Your task to perform on an android device: snooze an email in the gmail app Image 0: 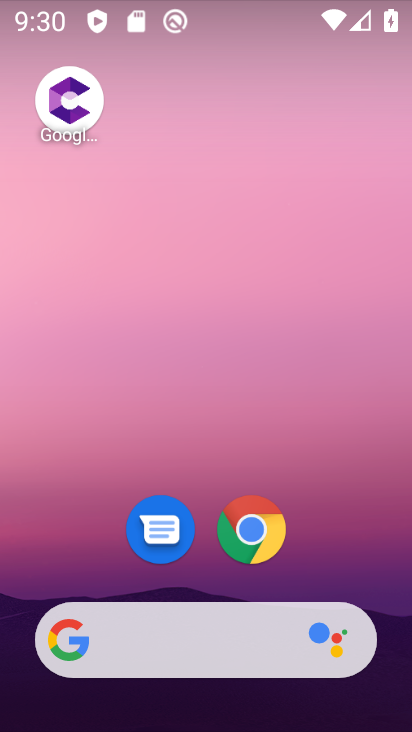
Step 0: drag from (294, 570) to (297, 63)
Your task to perform on an android device: snooze an email in the gmail app Image 1: 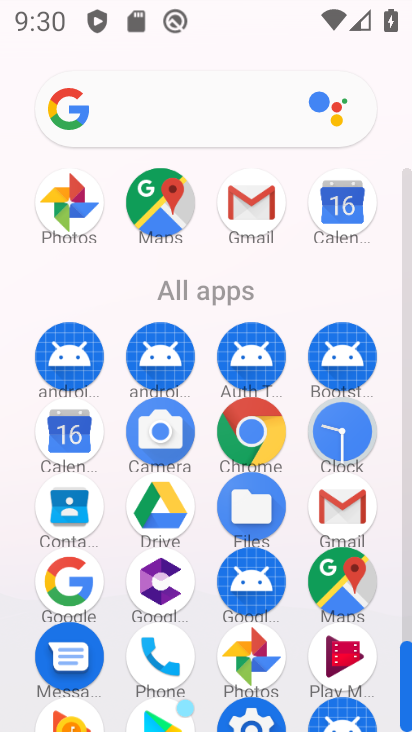
Step 1: click (252, 212)
Your task to perform on an android device: snooze an email in the gmail app Image 2: 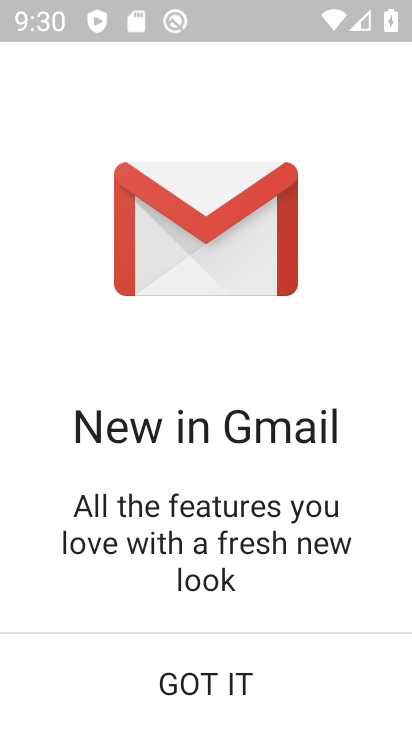
Step 2: click (288, 696)
Your task to perform on an android device: snooze an email in the gmail app Image 3: 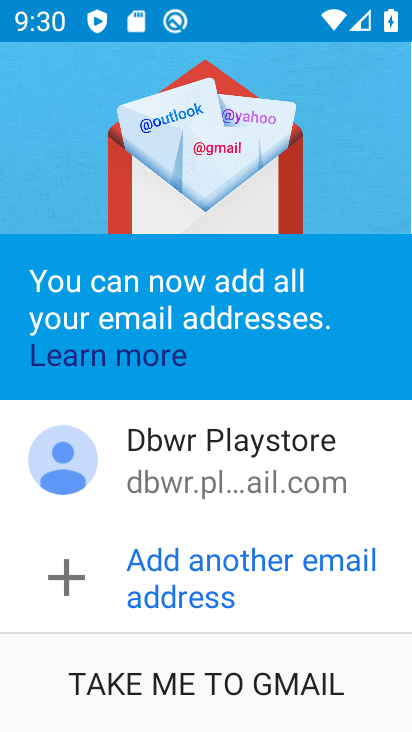
Step 3: click (247, 688)
Your task to perform on an android device: snooze an email in the gmail app Image 4: 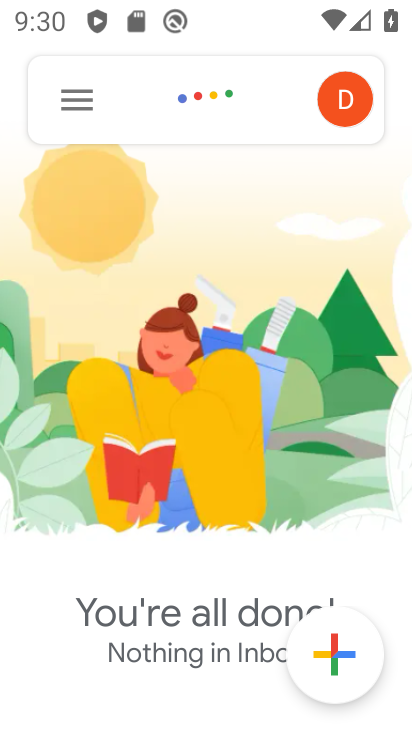
Step 4: click (78, 102)
Your task to perform on an android device: snooze an email in the gmail app Image 5: 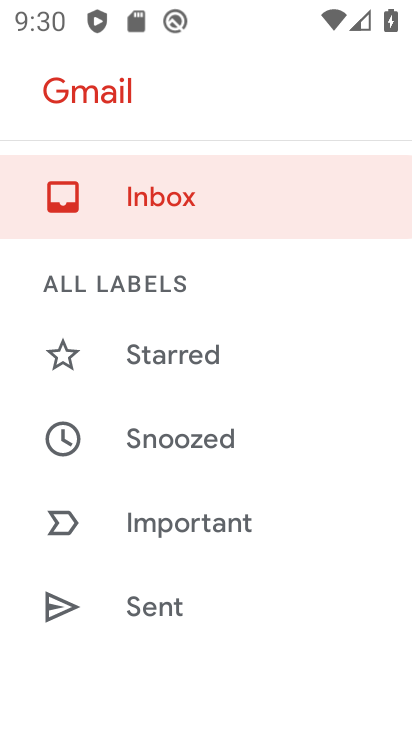
Step 5: drag from (200, 584) to (231, 328)
Your task to perform on an android device: snooze an email in the gmail app Image 6: 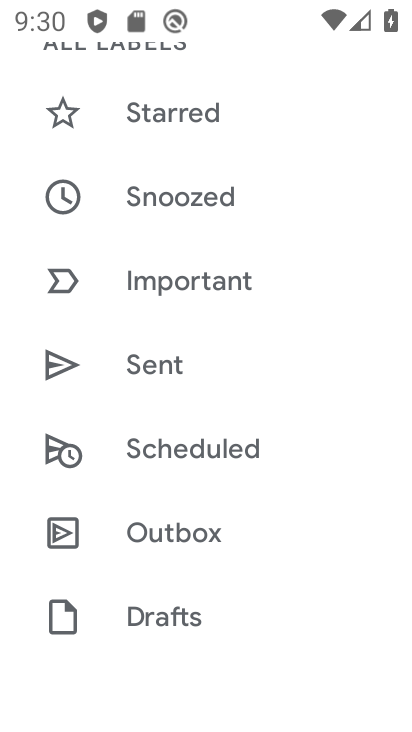
Step 6: drag from (188, 600) to (240, 265)
Your task to perform on an android device: snooze an email in the gmail app Image 7: 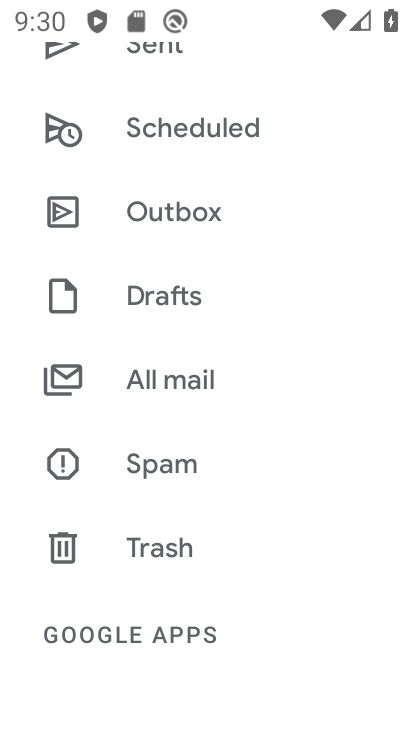
Step 7: click (179, 382)
Your task to perform on an android device: snooze an email in the gmail app Image 8: 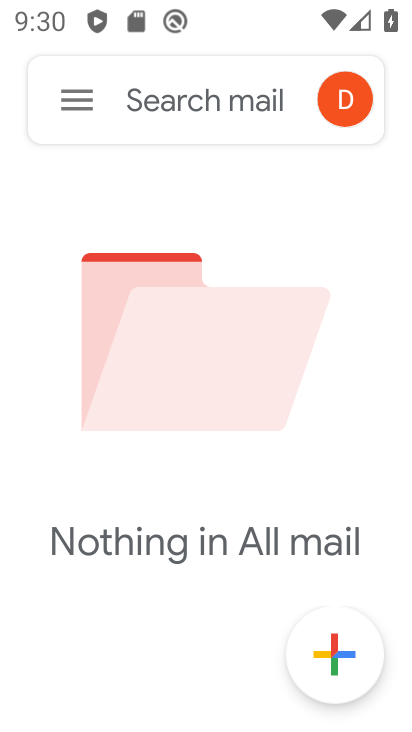
Step 8: task complete